Your task to perform on an android device: Do I have any events tomorrow? Image 0: 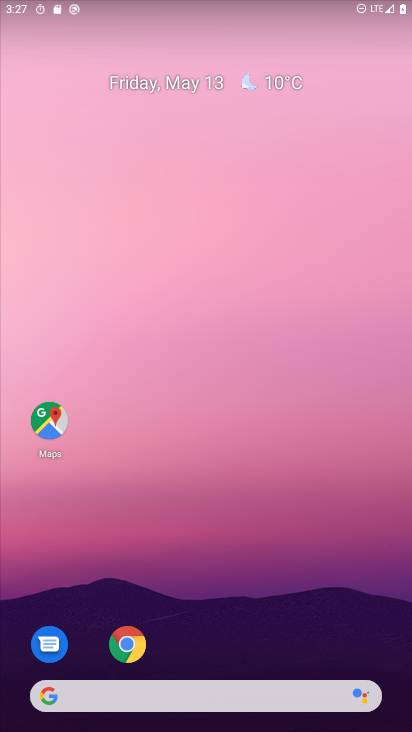
Step 0: drag from (221, 651) to (277, 56)
Your task to perform on an android device: Do I have any events tomorrow? Image 1: 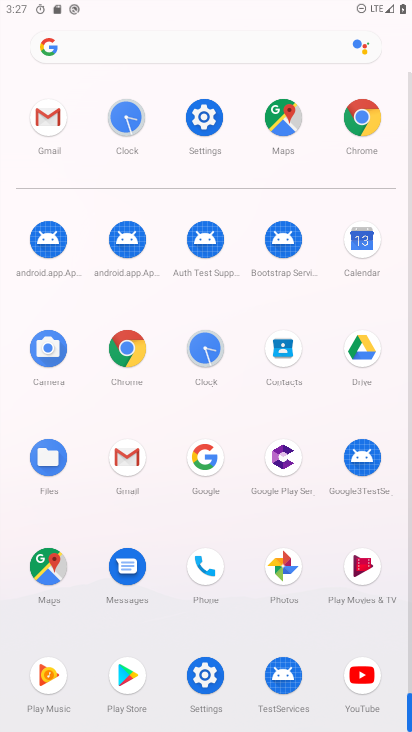
Step 1: click (369, 252)
Your task to perform on an android device: Do I have any events tomorrow? Image 2: 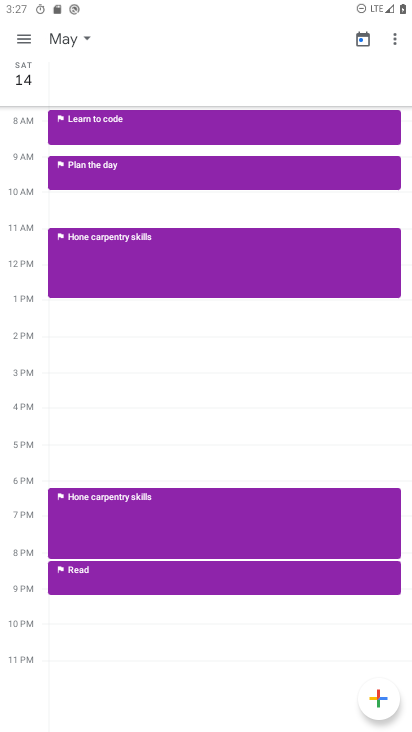
Step 2: click (92, 39)
Your task to perform on an android device: Do I have any events tomorrow? Image 3: 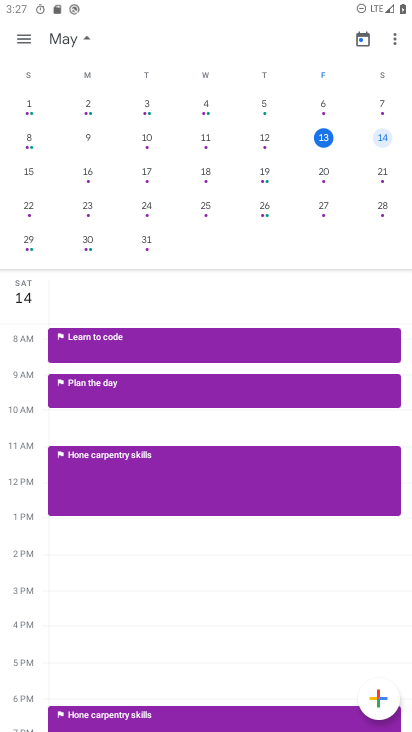
Step 3: click (382, 138)
Your task to perform on an android device: Do I have any events tomorrow? Image 4: 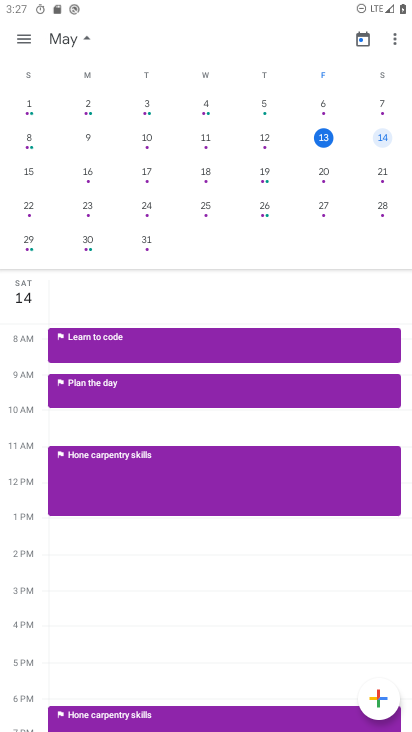
Step 4: task complete